Your task to perform on an android device: Open the phone app and click the voicemail tab. Image 0: 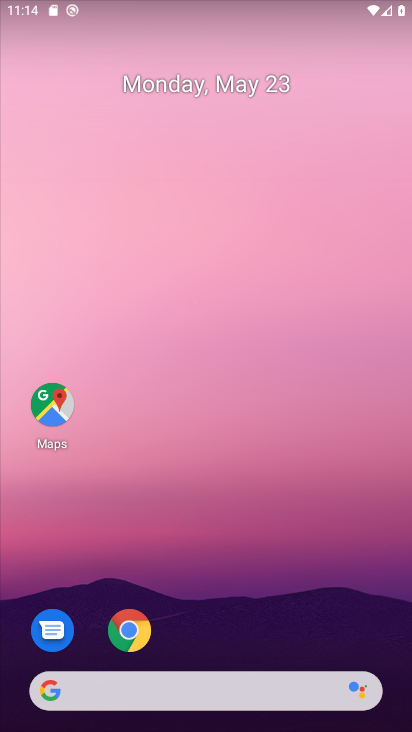
Step 0: drag from (188, 652) to (333, 190)
Your task to perform on an android device: Open the phone app and click the voicemail tab. Image 1: 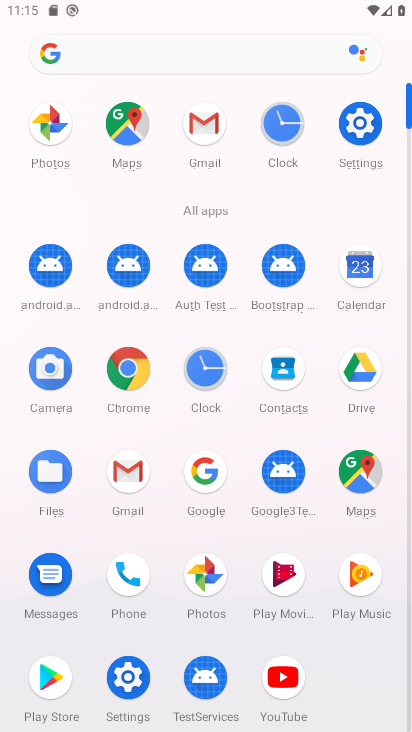
Step 1: click (363, 272)
Your task to perform on an android device: Open the phone app and click the voicemail tab. Image 2: 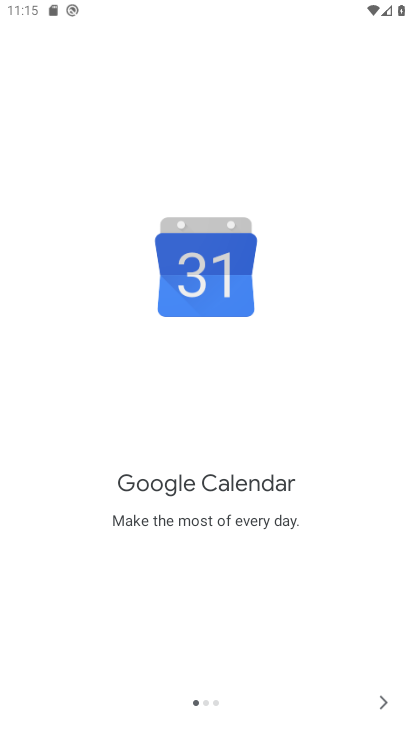
Step 2: click (384, 701)
Your task to perform on an android device: Open the phone app and click the voicemail tab. Image 3: 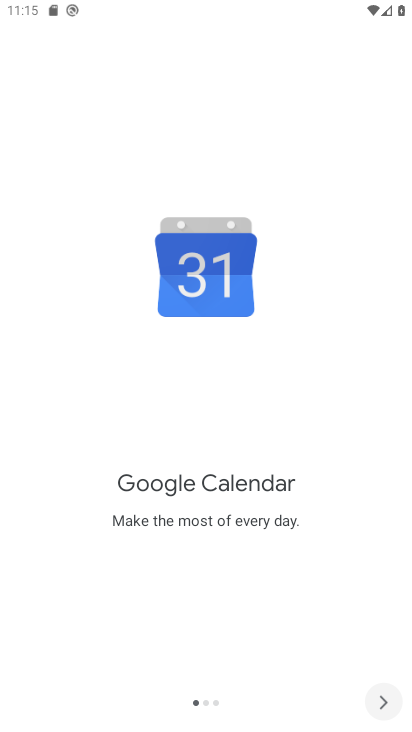
Step 3: click (384, 700)
Your task to perform on an android device: Open the phone app and click the voicemail tab. Image 4: 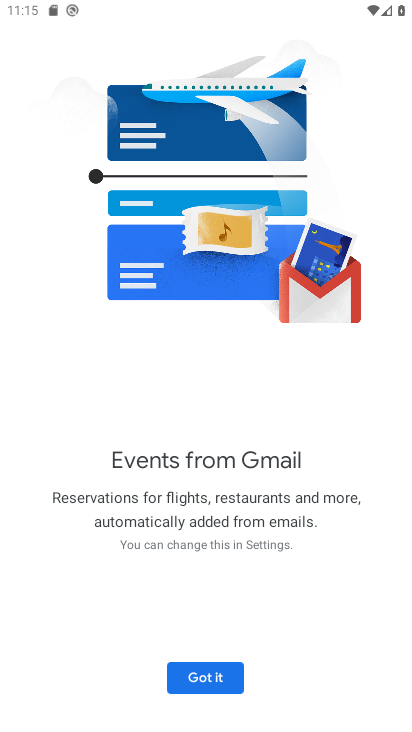
Step 4: click (222, 661)
Your task to perform on an android device: Open the phone app and click the voicemail tab. Image 5: 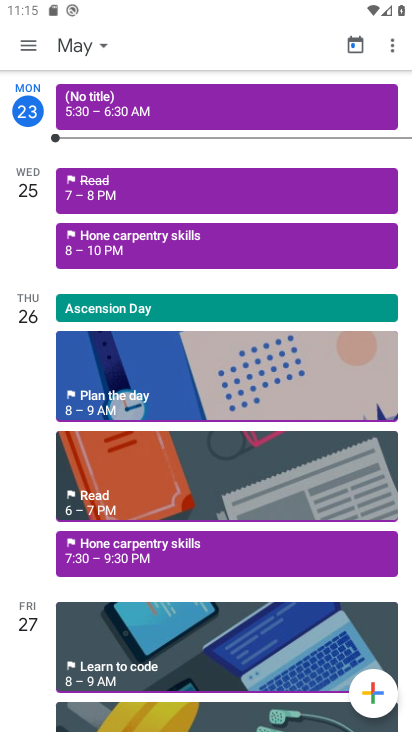
Step 5: click (24, 44)
Your task to perform on an android device: Open the phone app and click the voicemail tab. Image 6: 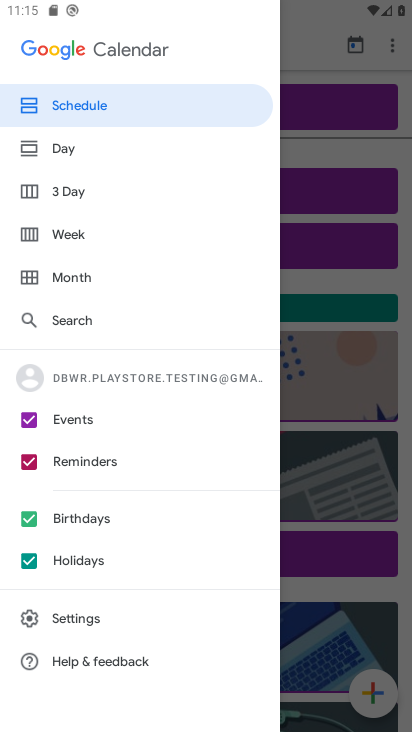
Step 6: click (92, 153)
Your task to perform on an android device: Open the phone app and click the voicemail tab. Image 7: 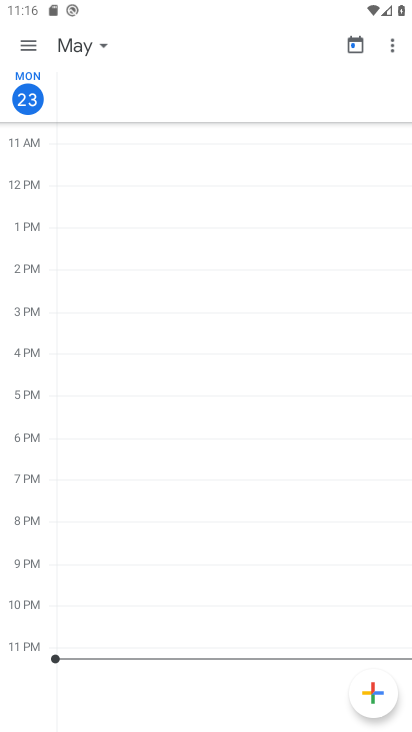
Step 7: press home button
Your task to perform on an android device: Open the phone app and click the voicemail tab. Image 8: 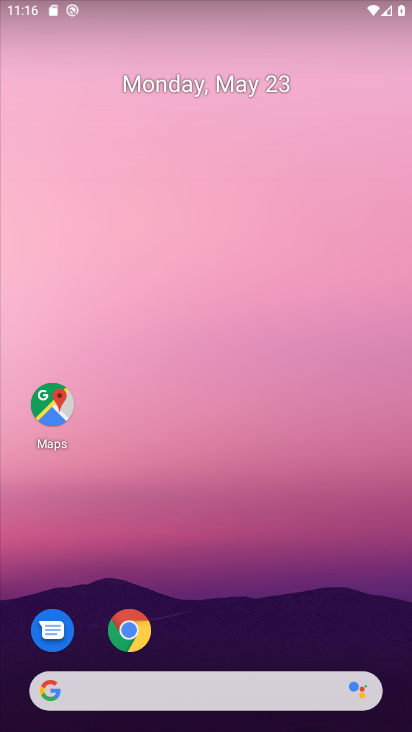
Step 8: drag from (198, 555) to (36, 560)
Your task to perform on an android device: Open the phone app and click the voicemail tab. Image 9: 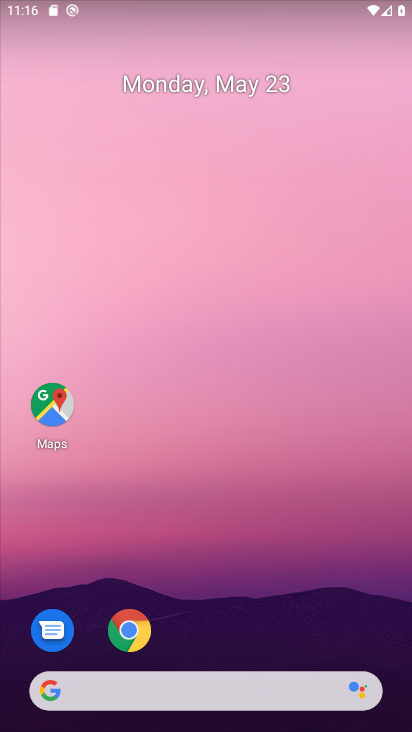
Step 9: drag from (186, 641) to (333, 5)
Your task to perform on an android device: Open the phone app and click the voicemail tab. Image 10: 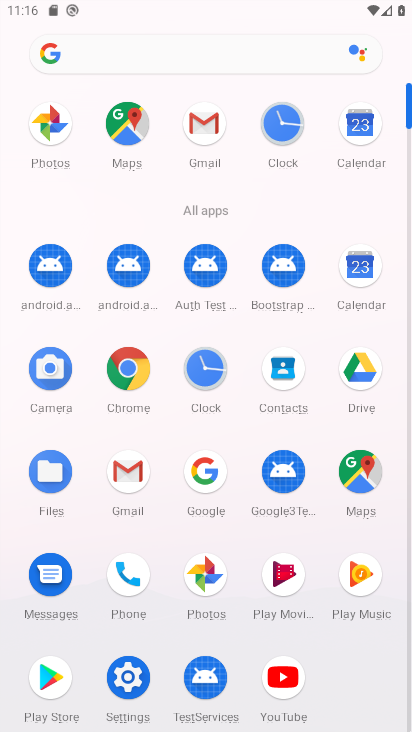
Step 10: click (121, 586)
Your task to perform on an android device: Open the phone app and click the voicemail tab. Image 11: 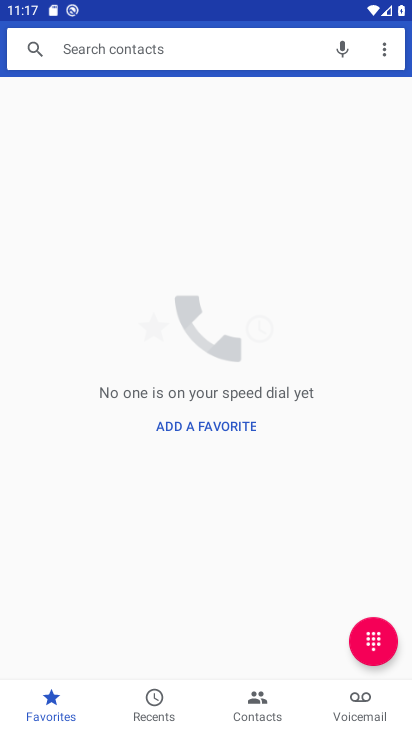
Step 11: click (341, 718)
Your task to perform on an android device: Open the phone app and click the voicemail tab. Image 12: 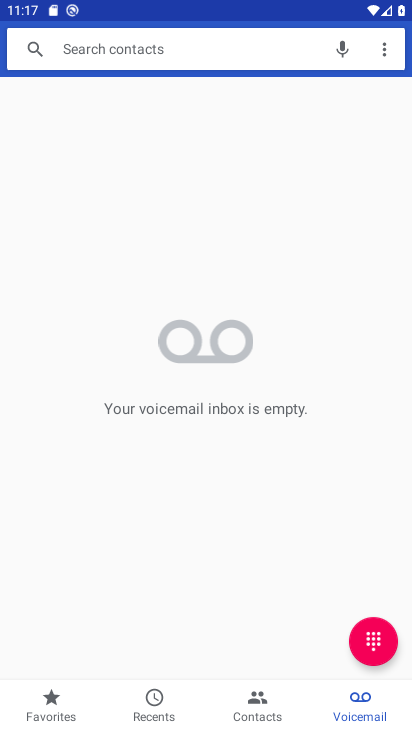
Step 12: task complete